Your task to perform on an android device: Open accessibility settings Image 0: 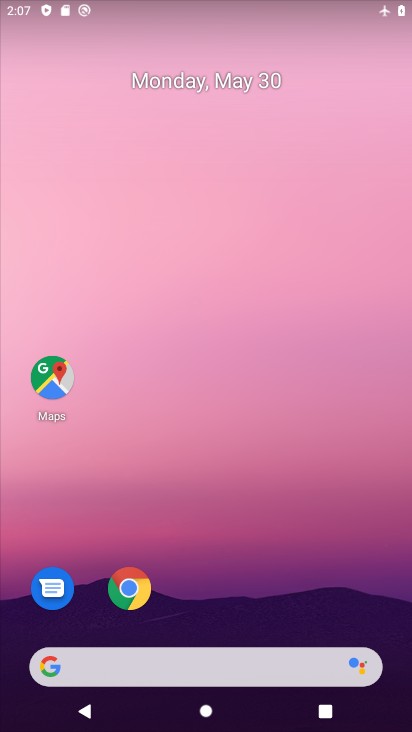
Step 0: drag from (279, 627) to (224, 189)
Your task to perform on an android device: Open accessibility settings Image 1: 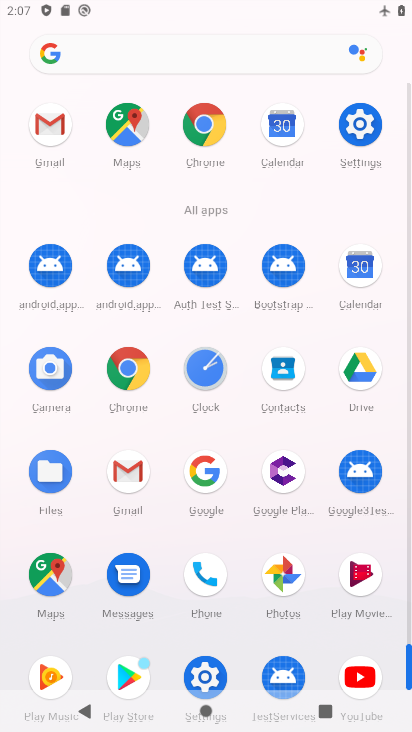
Step 1: click (359, 117)
Your task to perform on an android device: Open accessibility settings Image 2: 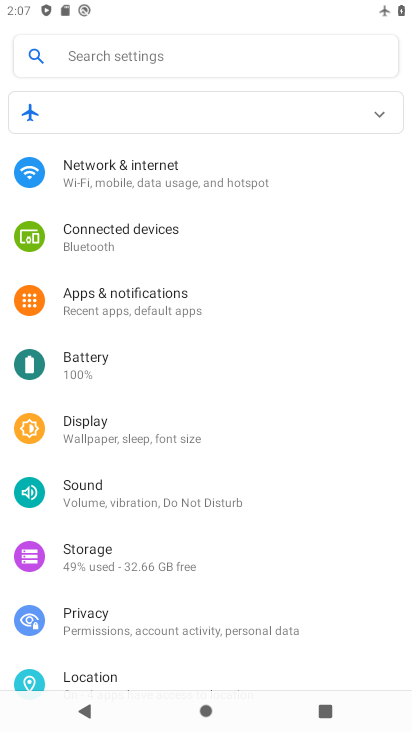
Step 2: drag from (159, 581) to (214, 240)
Your task to perform on an android device: Open accessibility settings Image 3: 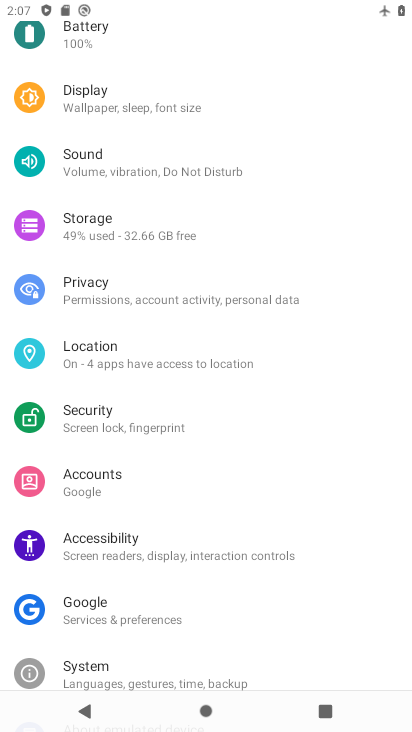
Step 3: click (153, 541)
Your task to perform on an android device: Open accessibility settings Image 4: 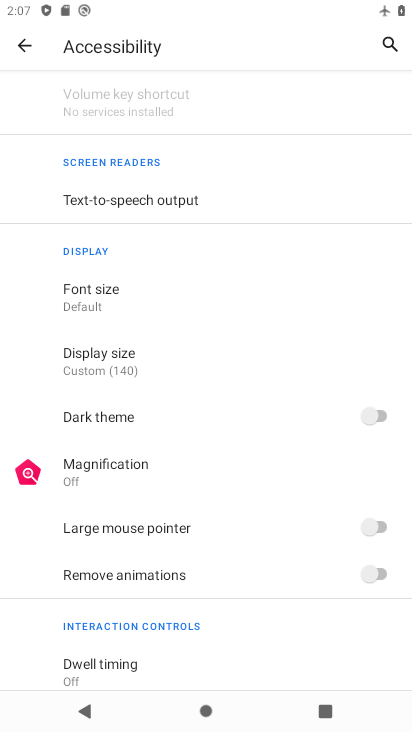
Step 4: task complete